Your task to perform on an android device: Search for alienware aurora on costco.com, select the first entry, add it to the cart, then select checkout. Image 0: 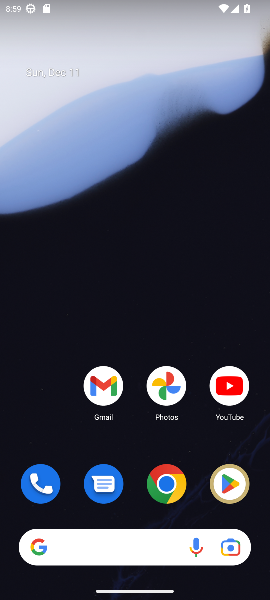
Step 0: click (168, 482)
Your task to perform on an android device: Search for alienware aurora on costco.com, select the first entry, add it to the cart, then select checkout. Image 1: 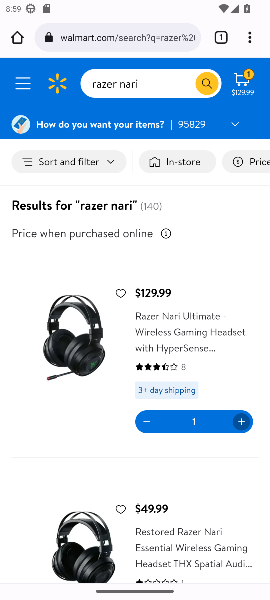
Step 1: click (128, 33)
Your task to perform on an android device: Search for alienware aurora on costco.com, select the first entry, add it to the cart, then select checkout. Image 2: 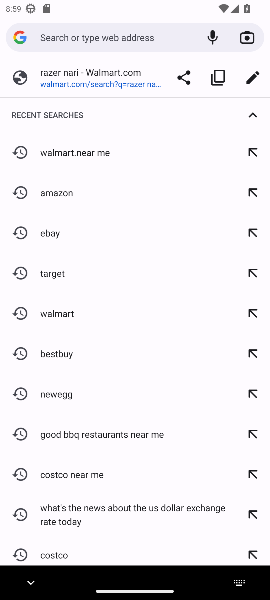
Step 2: click (50, 554)
Your task to perform on an android device: Search for alienware aurora on costco.com, select the first entry, add it to the cart, then select checkout. Image 3: 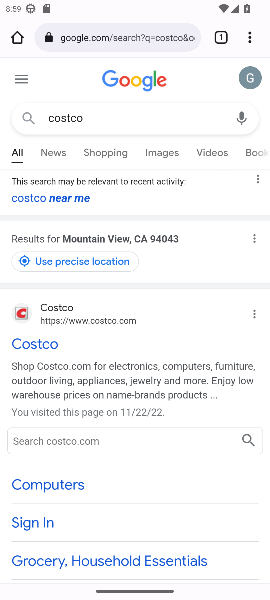
Step 3: click (29, 339)
Your task to perform on an android device: Search for alienware aurora on costco.com, select the first entry, add it to the cart, then select checkout. Image 4: 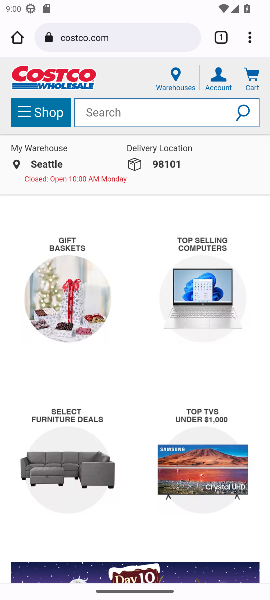
Step 4: click (116, 116)
Your task to perform on an android device: Search for alienware aurora on costco.com, select the first entry, add it to the cart, then select checkout. Image 5: 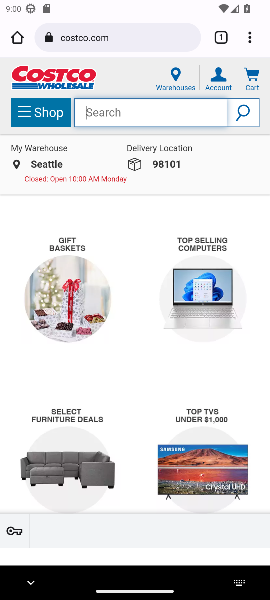
Step 5: type "alienware aurora "
Your task to perform on an android device: Search for alienware aurora on costco.com, select the first entry, add it to the cart, then select checkout. Image 6: 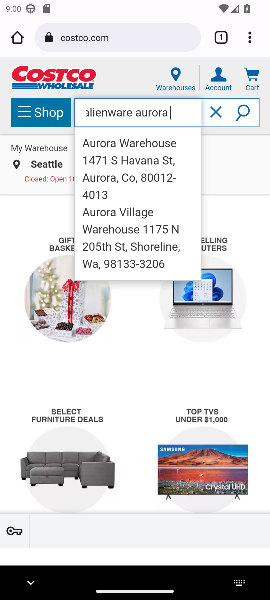
Step 6: click (247, 115)
Your task to perform on an android device: Search for alienware aurora on costco.com, select the first entry, add it to the cart, then select checkout. Image 7: 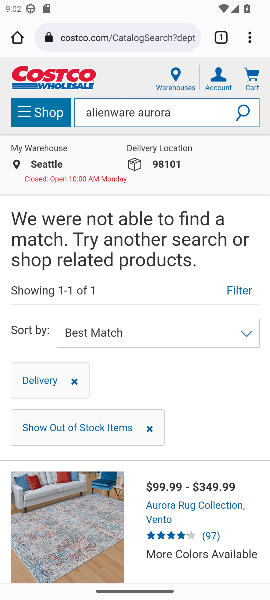
Step 7: task complete